Your task to perform on an android device: Who is the president of the United States? Image 0: 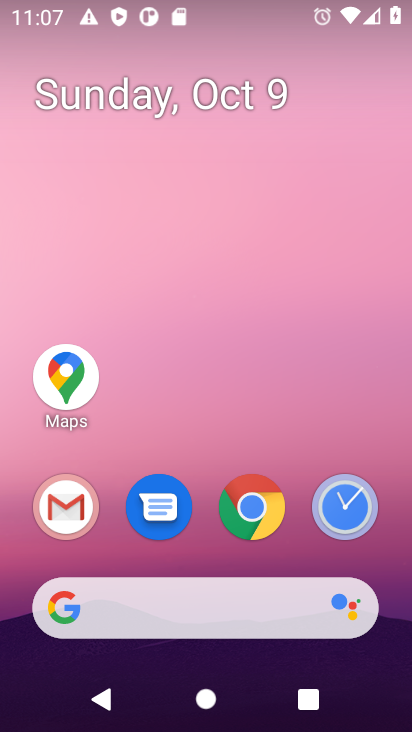
Step 0: click (234, 603)
Your task to perform on an android device: Who is the president of the United States? Image 1: 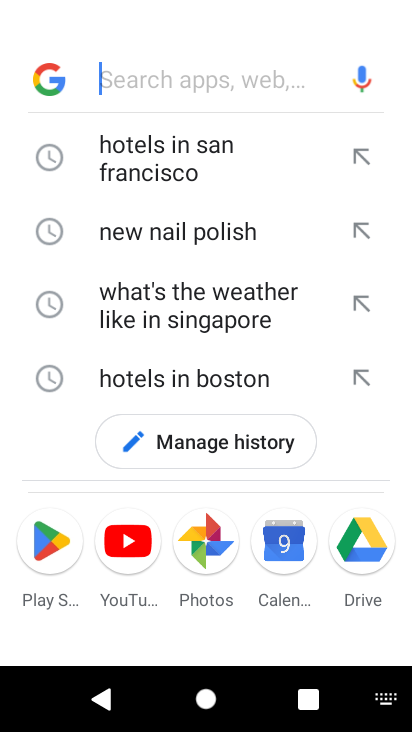
Step 1: type "Who is the president of the United States"
Your task to perform on an android device: Who is the president of the United States? Image 2: 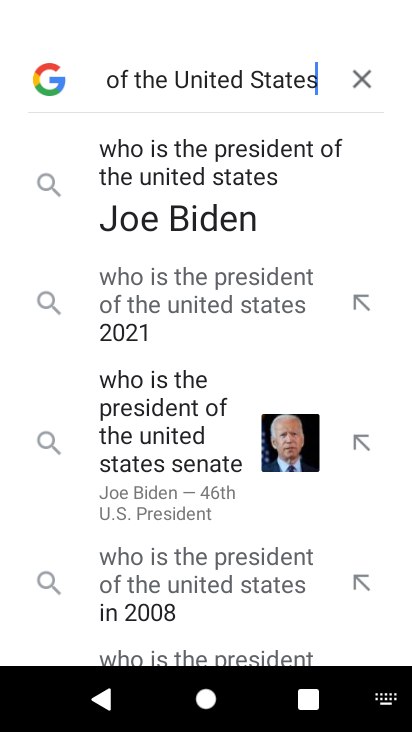
Step 2: press enter
Your task to perform on an android device: Who is the president of the United States? Image 3: 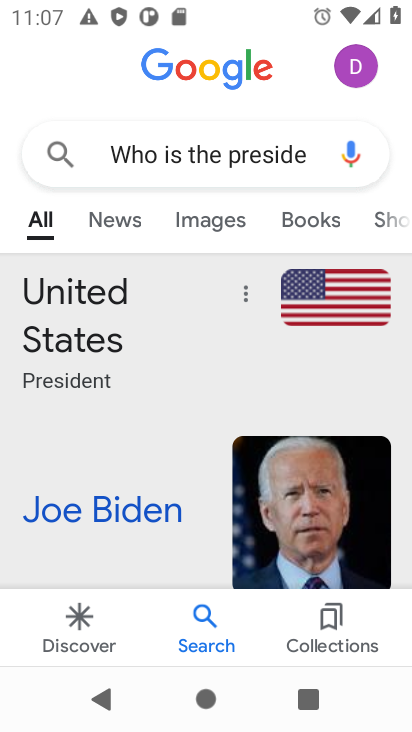
Step 3: task complete